Your task to perform on an android device: open a new tab in the chrome app Image 0: 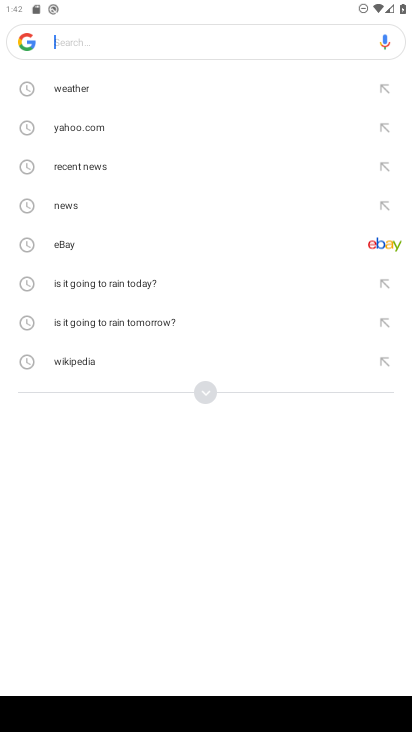
Step 0: press back button
Your task to perform on an android device: open a new tab in the chrome app Image 1: 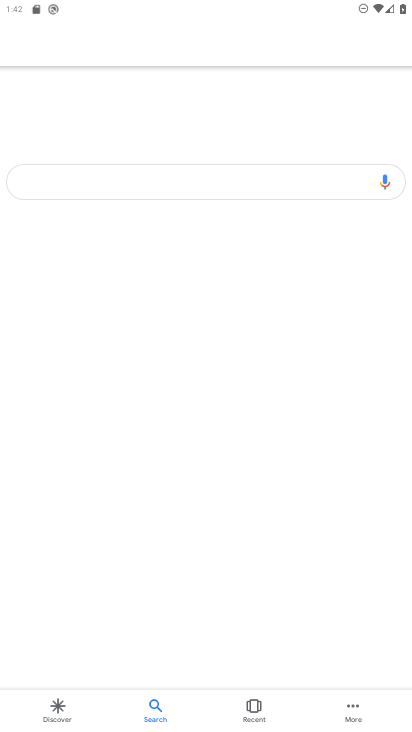
Step 1: press back button
Your task to perform on an android device: open a new tab in the chrome app Image 2: 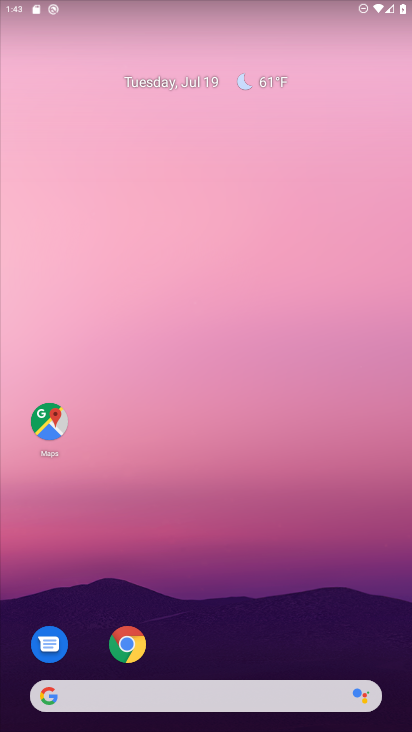
Step 2: click (130, 642)
Your task to perform on an android device: open a new tab in the chrome app Image 3: 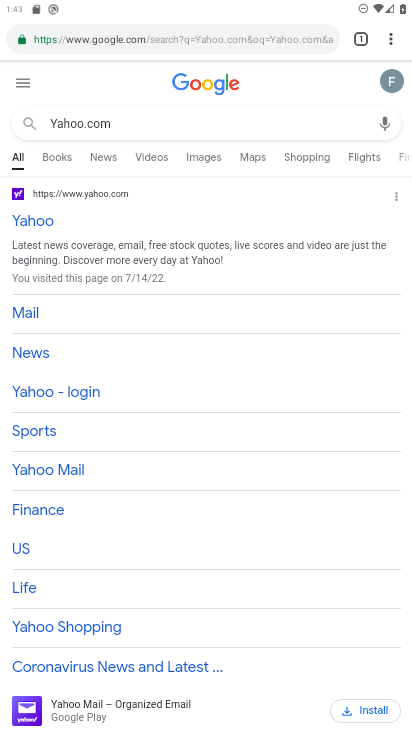
Step 3: click (389, 36)
Your task to perform on an android device: open a new tab in the chrome app Image 4: 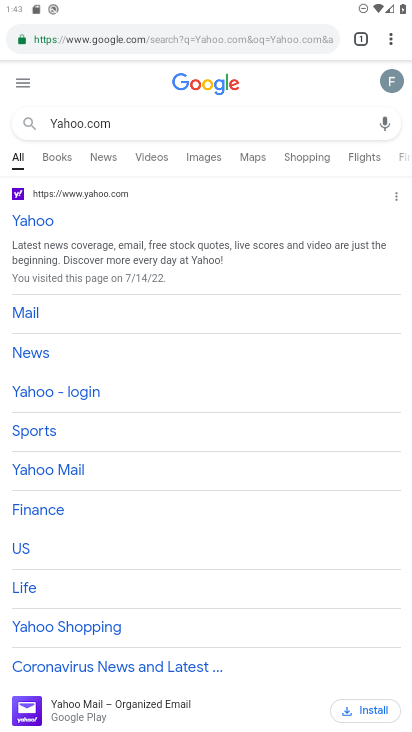
Step 4: click (389, 36)
Your task to perform on an android device: open a new tab in the chrome app Image 5: 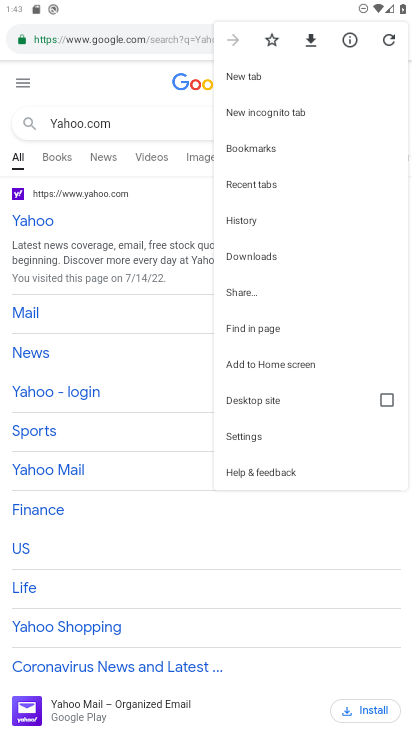
Step 5: click (238, 74)
Your task to perform on an android device: open a new tab in the chrome app Image 6: 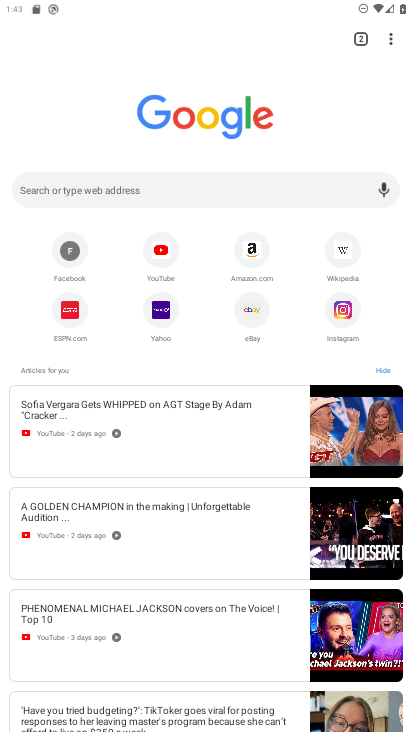
Step 6: task complete